Your task to perform on an android device: turn on priority inbox in the gmail app Image 0: 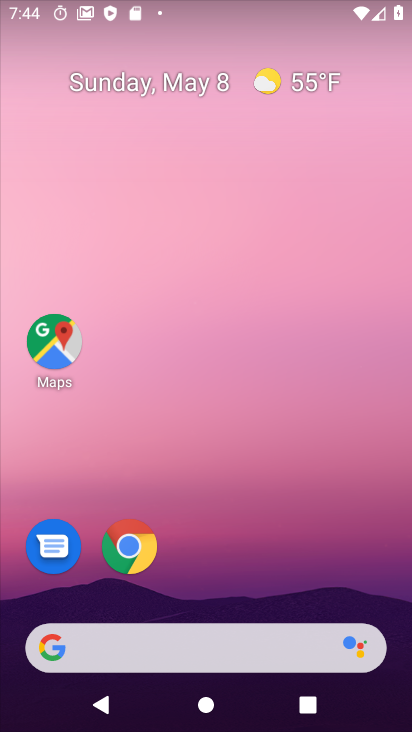
Step 0: drag from (247, 560) to (273, 1)
Your task to perform on an android device: turn on priority inbox in the gmail app Image 1: 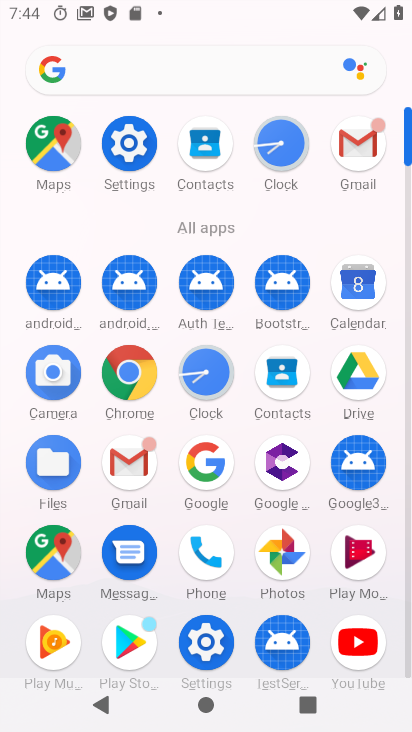
Step 1: click (362, 150)
Your task to perform on an android device: turn on priority inbox in the gmail app Image 2: 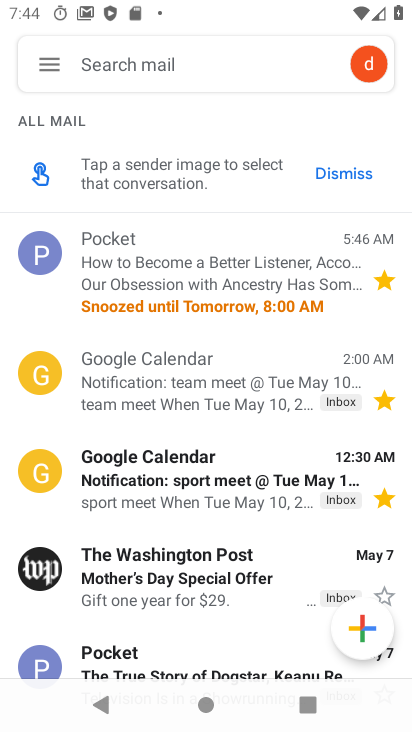
Step 2: click (51, 68)
Your task to perform on an android device: turn on priority inbox in the gmail app Image 3: 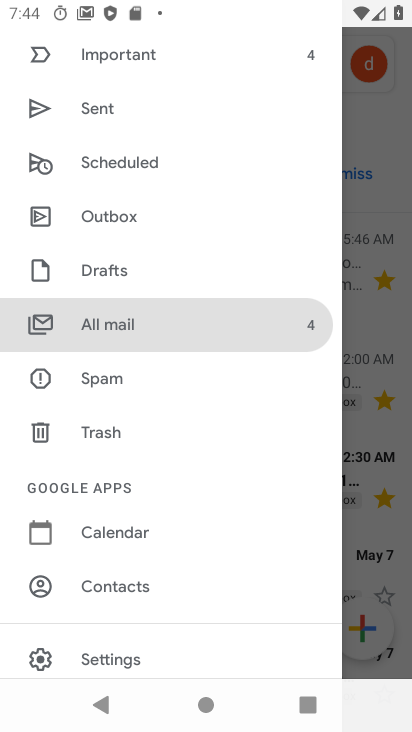
Step 3: click (117, 654)
Your task to perform on an android device: turn on priority inbox in the gmail app Image 4: 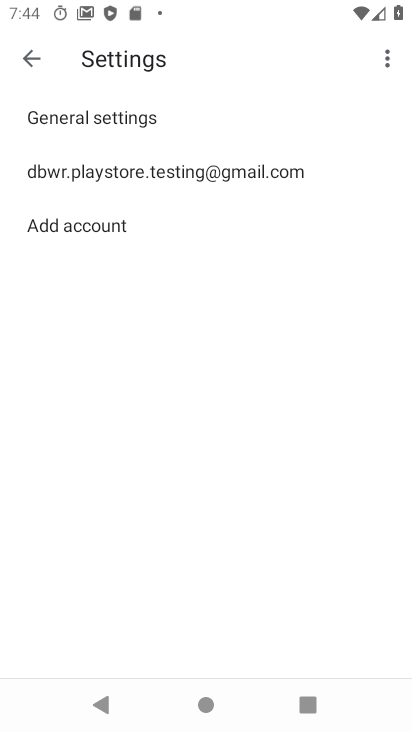
Step 4: click (115, 160)
Your task to perform on an android device: turn on priority inbox in the gmail app Image 5: 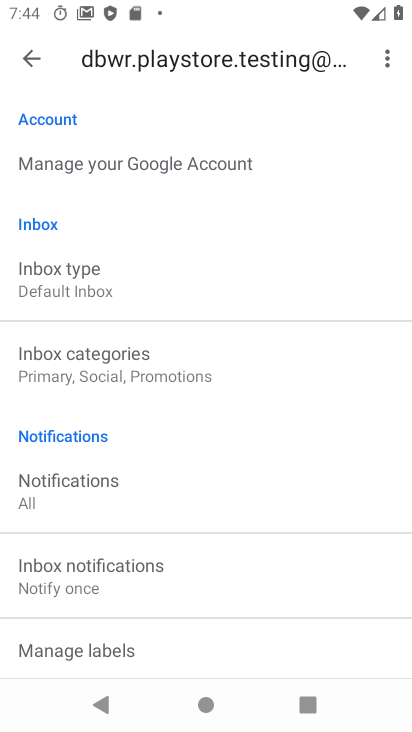
Step 5: click (63, 272)
Your task to perform on an android device: turn on priority inbox in the gmail app Image 6: 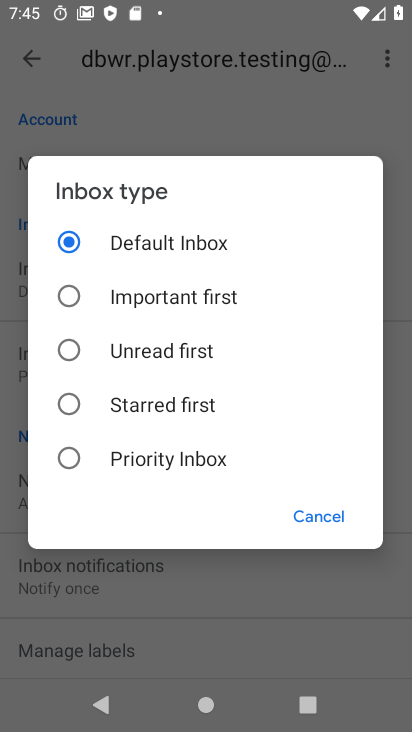
Step 6: click (65, 453)
Your task to perform on an android device: turn on priority inbox in the gmail app Image 7: 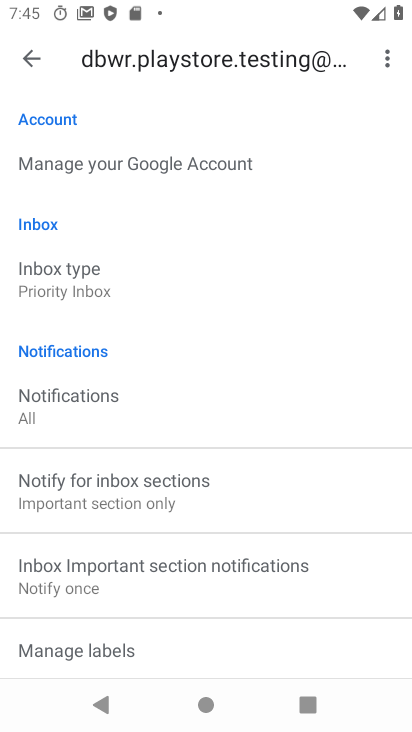
Step 7: task complete